Your task to perform on an android device: search for accent chairs on article.com Image 0: 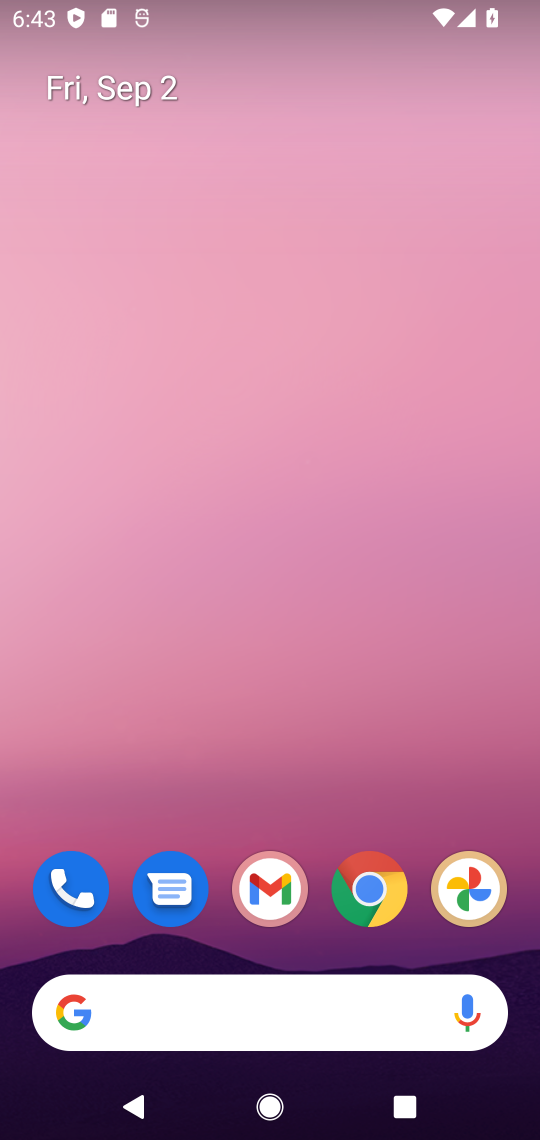
Step 0: click (287, 990)
Your task to perform on an android device: search for accent chairs on article.com Image 1: 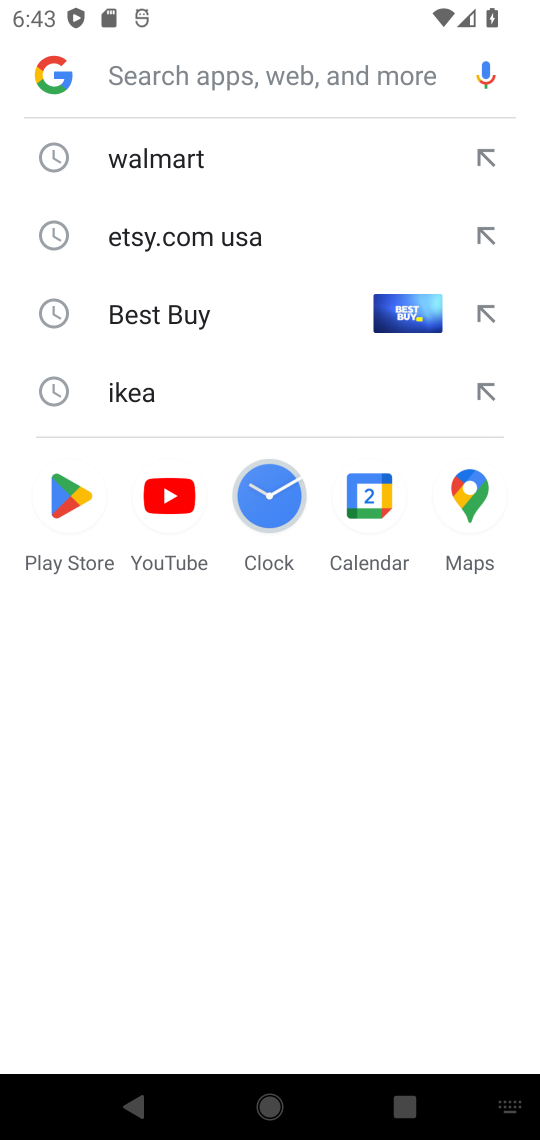
Step 1: type "article.com"
Your task to perform on an android device: search for accent chairs on article.com Image 2: 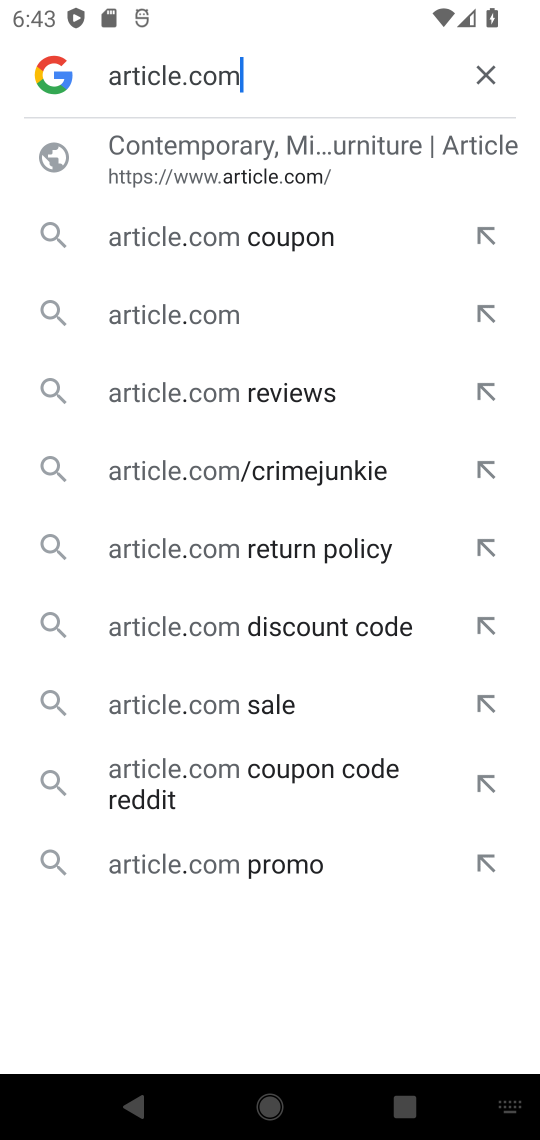
Step 2: click (196, 321)
Your task to perform on an android device: search for accent chairs on article.com Image 3: 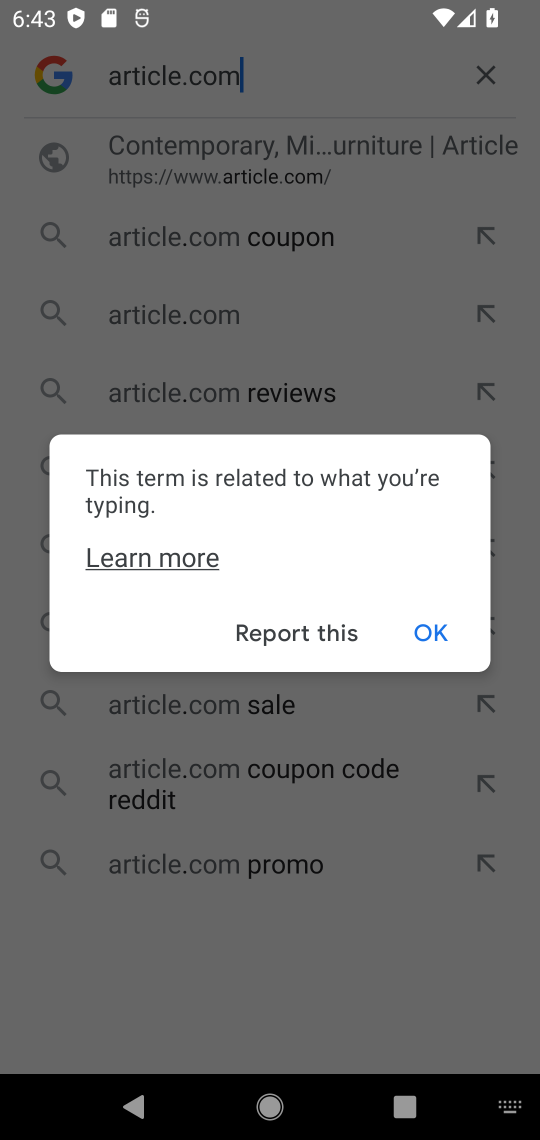
Step 3: click (437, 615)
Your task to perform on an android device: search for accent chairs on article.com Image 4: 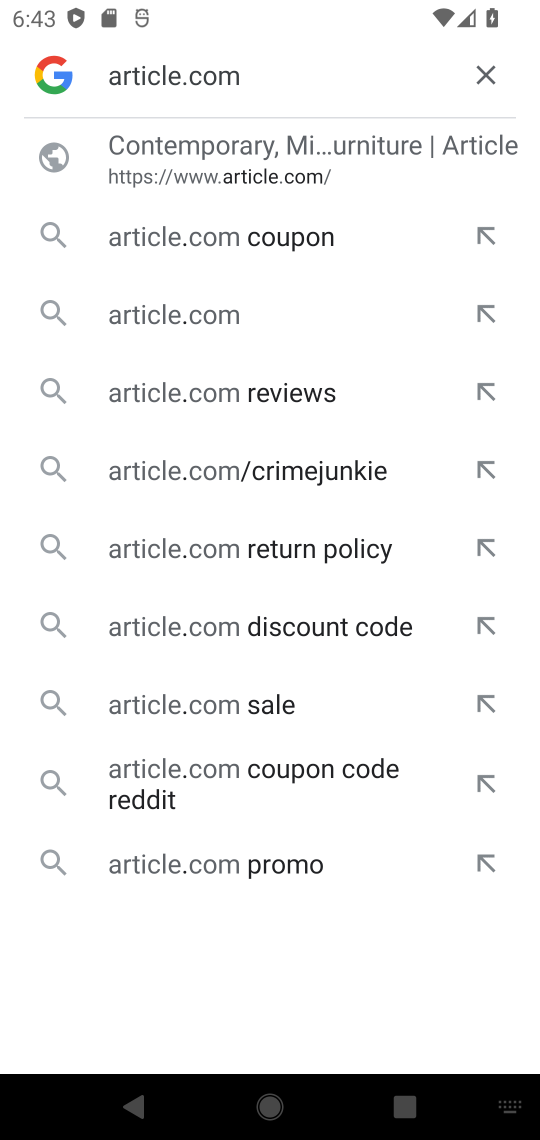
Step 4: click (180, 315)
Your task to perform on an android device: search for accent chairs on article.com Image 5: 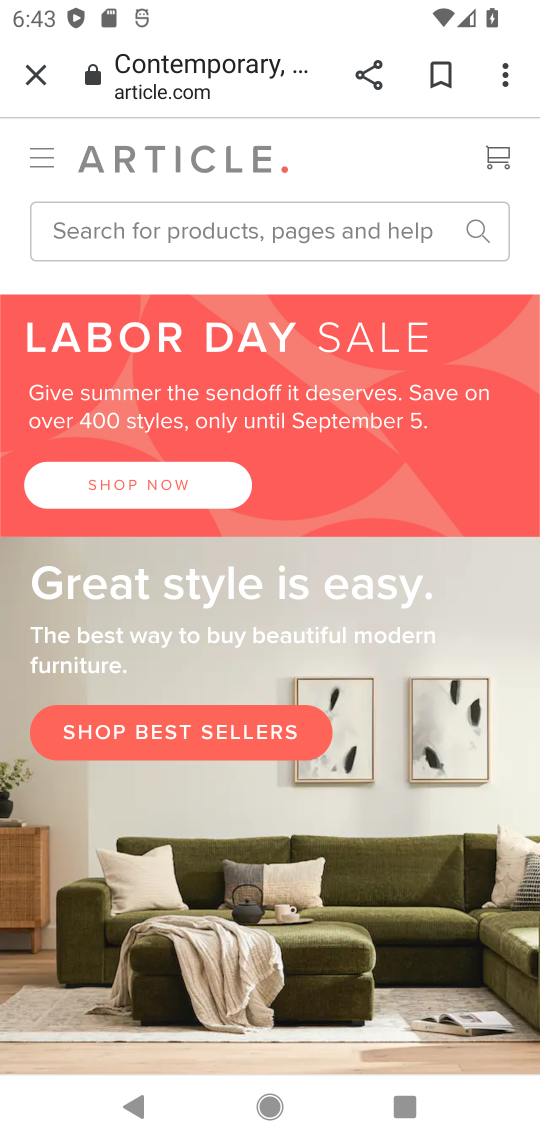
Step 5: click (168, 232)
Your task to perform on an android device: search for accent chairs on article.com Image 6: 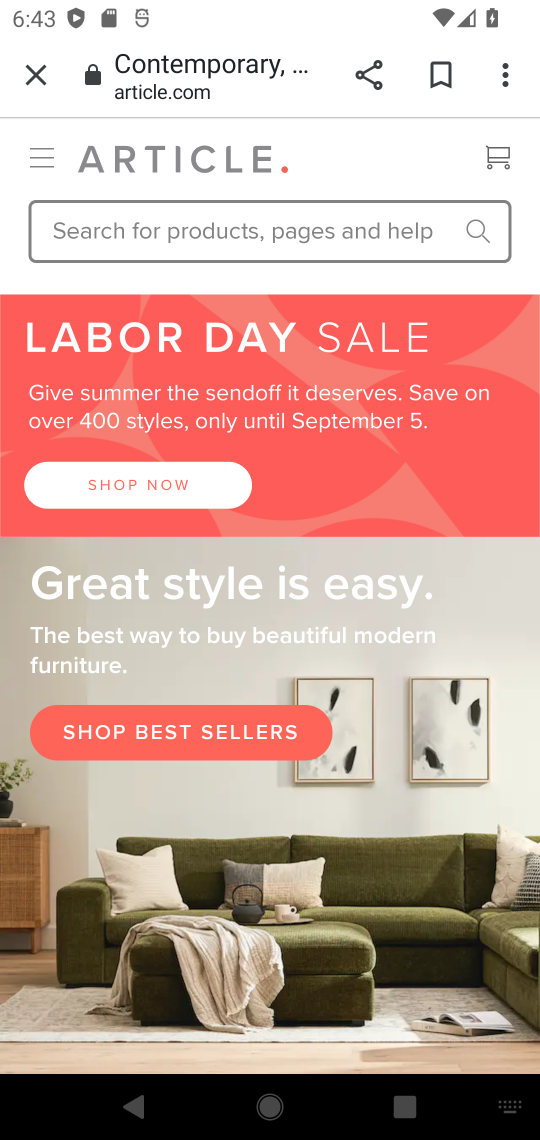
Step 6: click (186, 236)
Your task to perform on an android device: search for accent chairs on article.com Image 7: 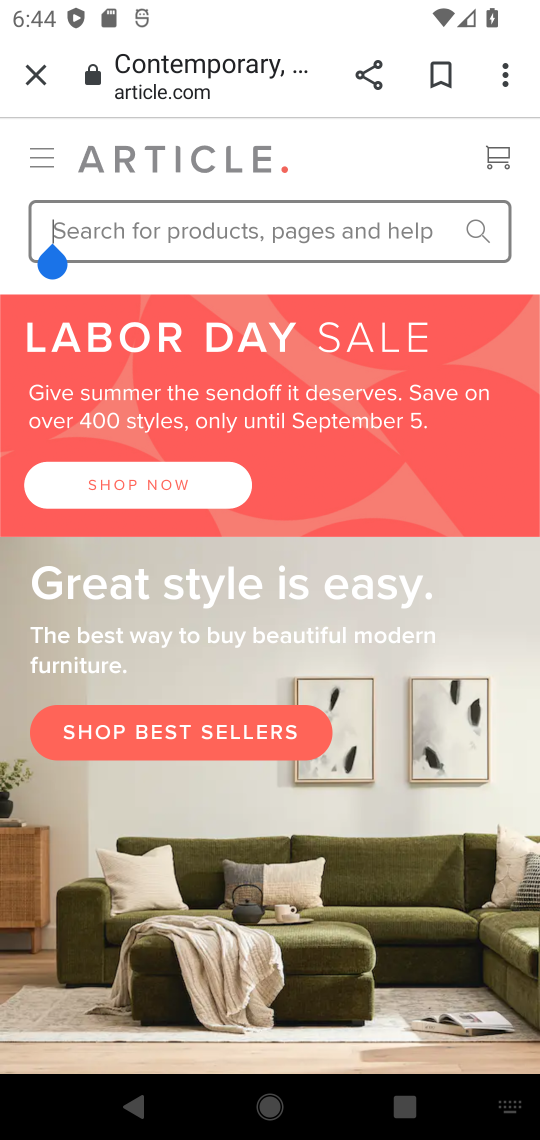
Step 7: type "accent chairs"
Your task to perform on an android device: search for accent chairs on article.com Image 8: 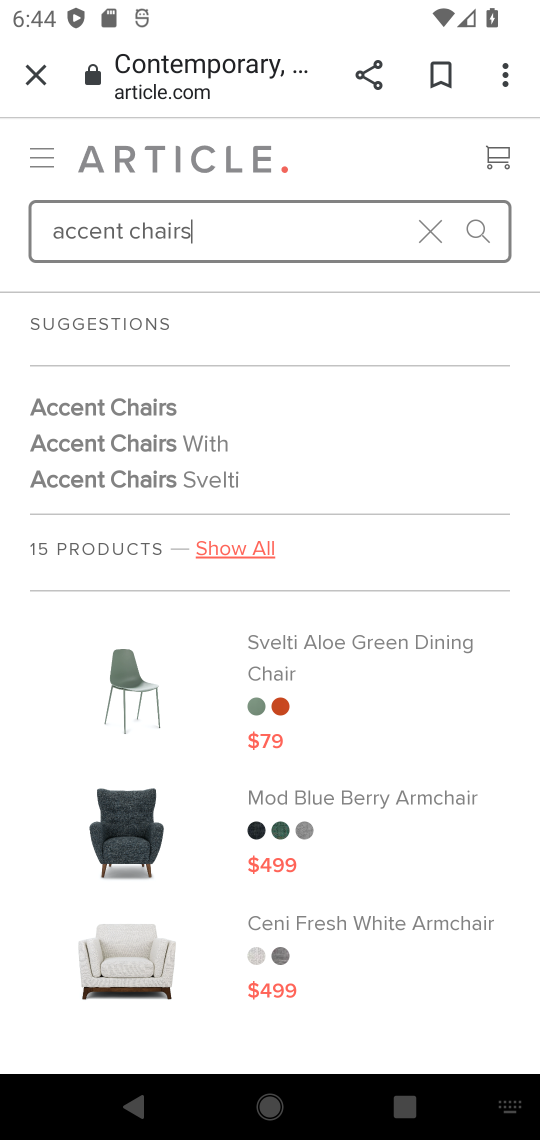
Step 8: click (478, 227)
Your task to perform on an android device: search for accent chairs on article.com Image 9: 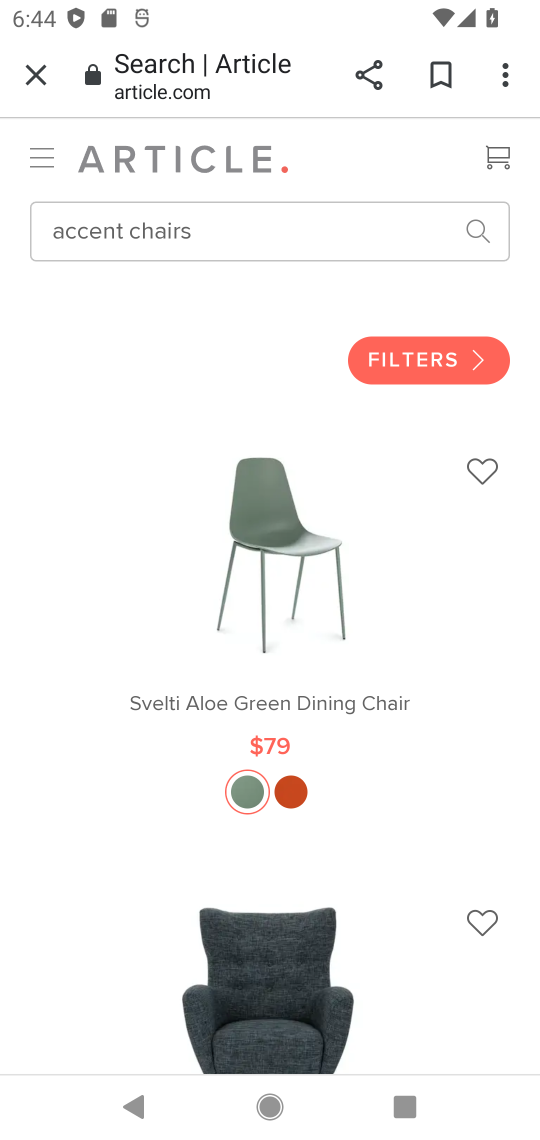
Step 9: task complete